Your task to perform on an android device: toggle wifi Image 0: 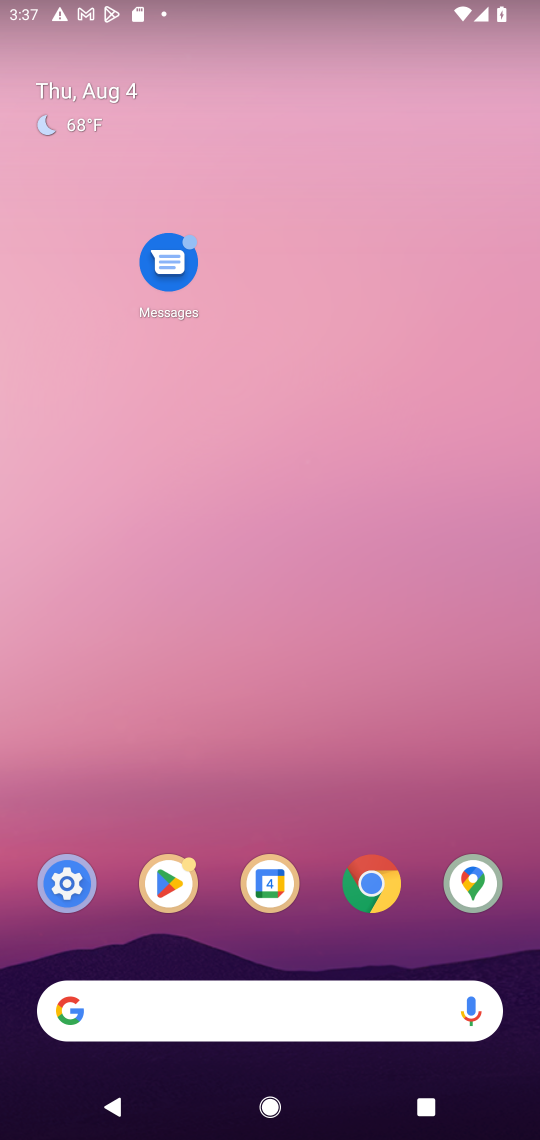
Step 0: drag from (309, 909) to (362, 132)
Your task to perform on an android device: toggle wifi Image 1: 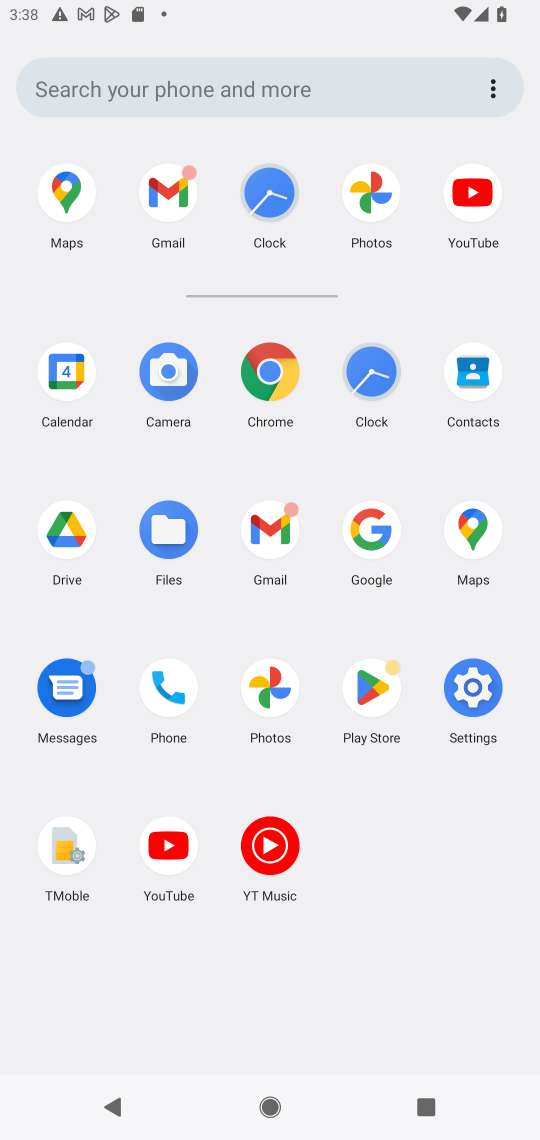
Step 1: click (475, 688)
Your task to perform on an android device: toggle wifi Image 2: 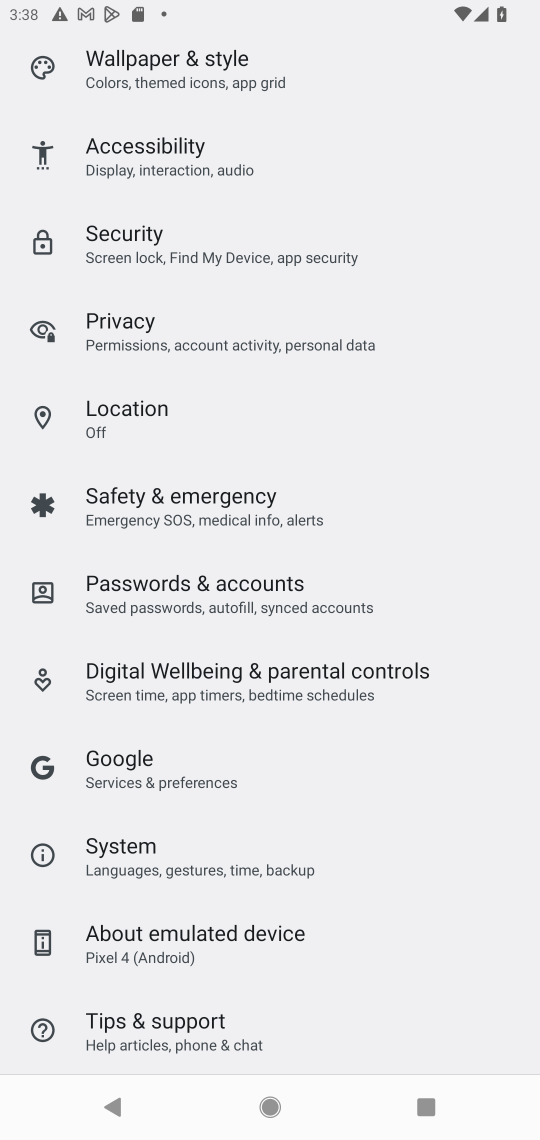
Step 2: drag from (205, 211) to (197, 996)
Your task to perform on an android device: toggle wifi Image 3: 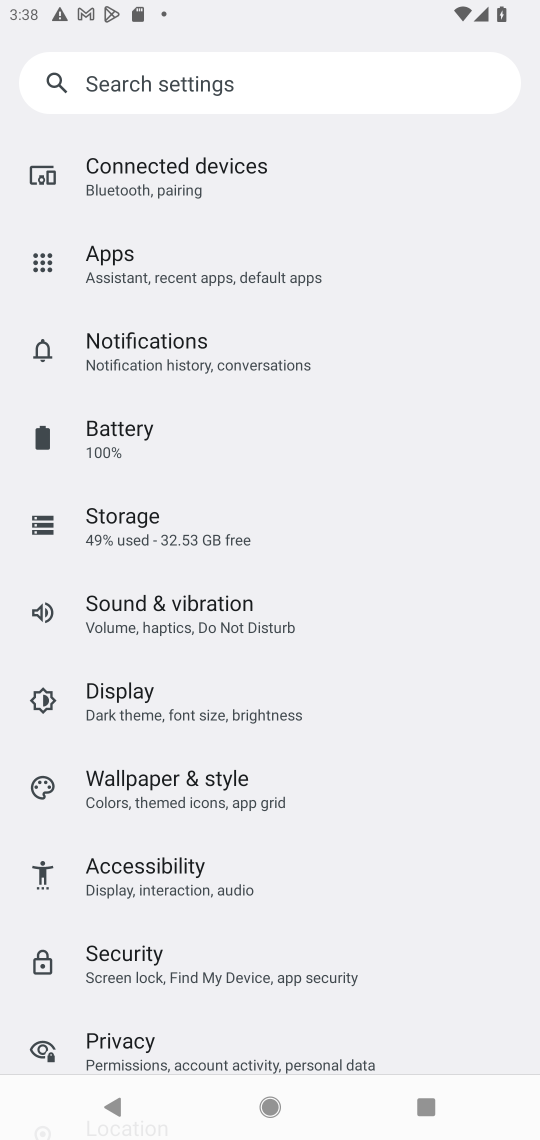
Step 3: drag from (202, 210) to (233, 935)
Your task to perform on an android device: toggle wifi Image 4: 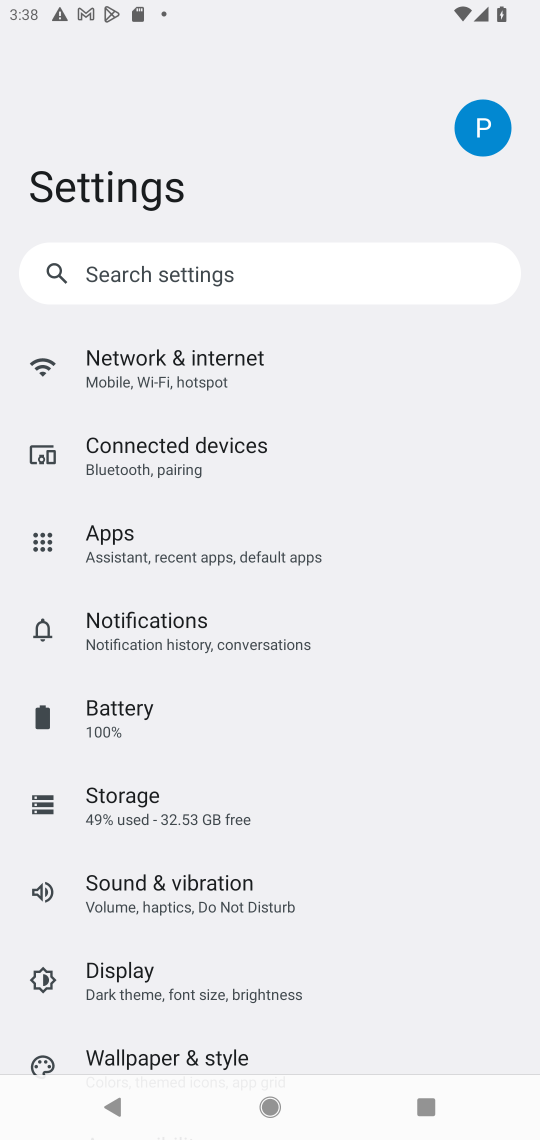
Step 4: click (171, 370)
Your task to perform on an android device: toggle wifi Image 5: 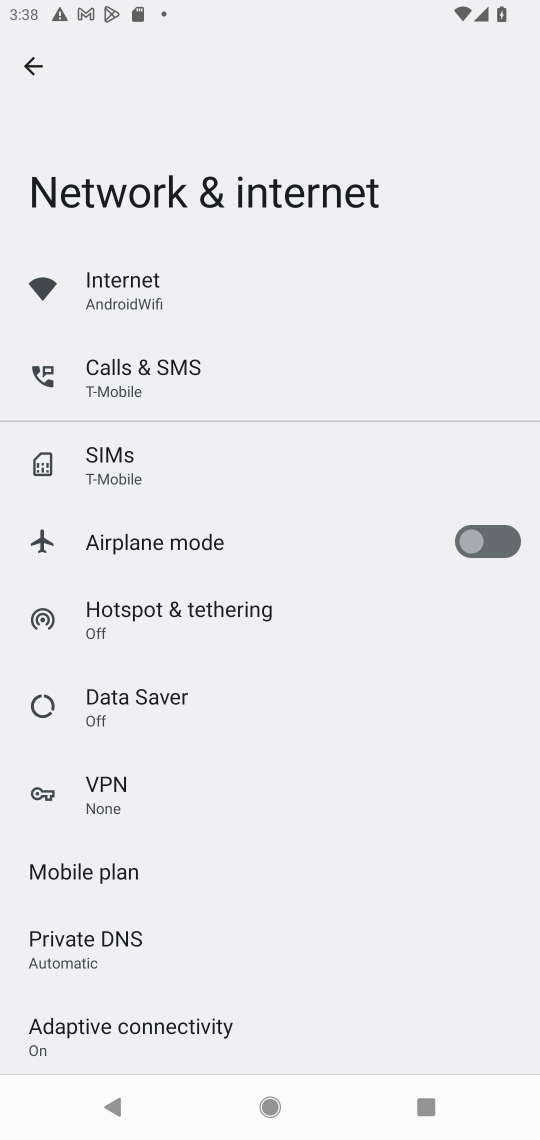
Step 5: click (140, 286)
Your task to perform on an android device: toggle wifi Image 6: 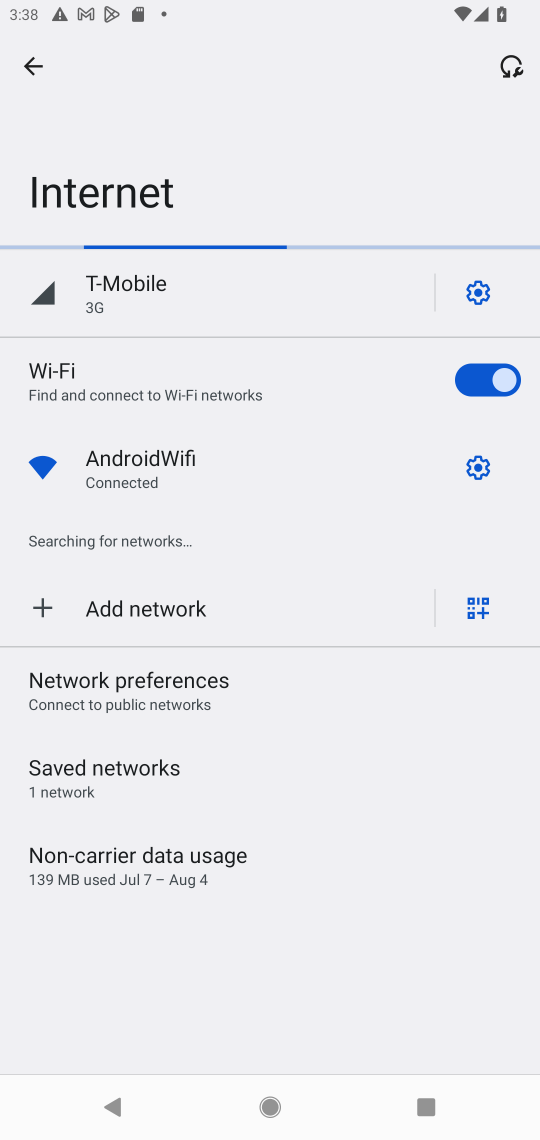
Step 6: click (487, 373)
Your task to perform on an android device: toggle wifi Image 7: 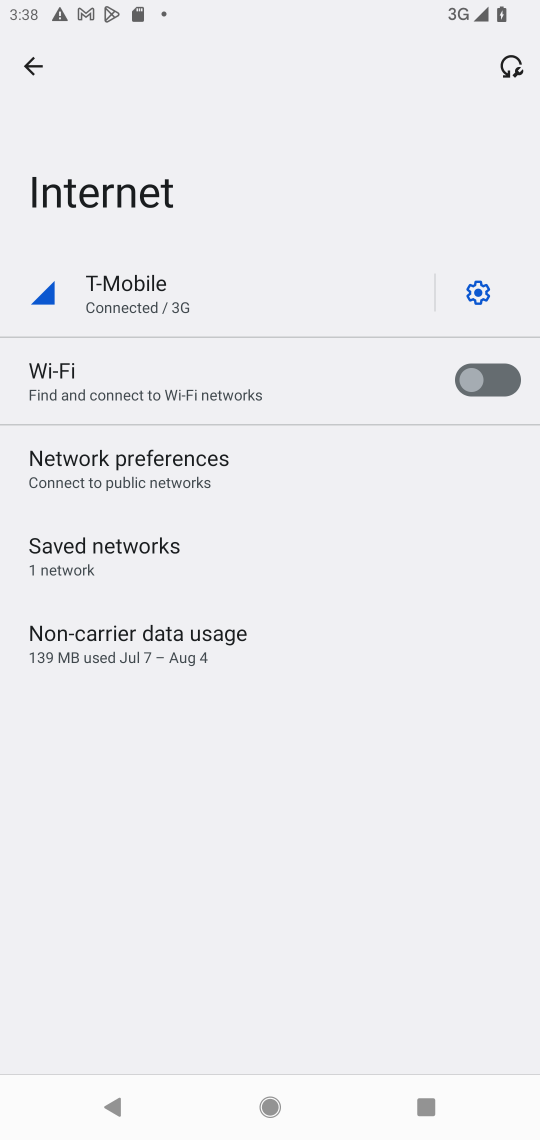
Step 7: task complete